Your task to perform on an android device: open a bookmark in the chrome app Image 0: 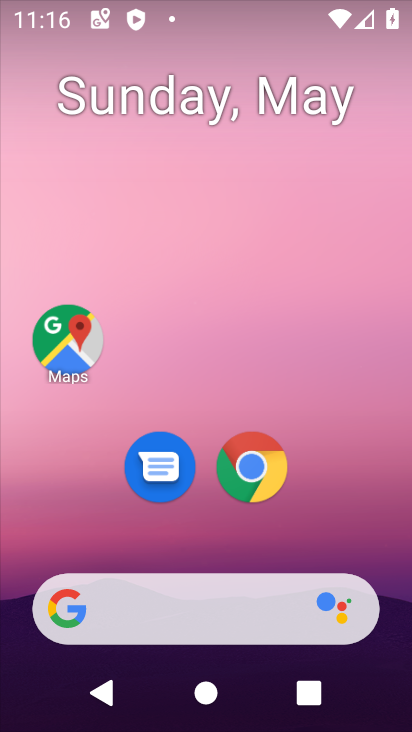
Step 0: click (256, 468)
Your task to perform on an android device: open a bookmark in the chrome app Image 1: 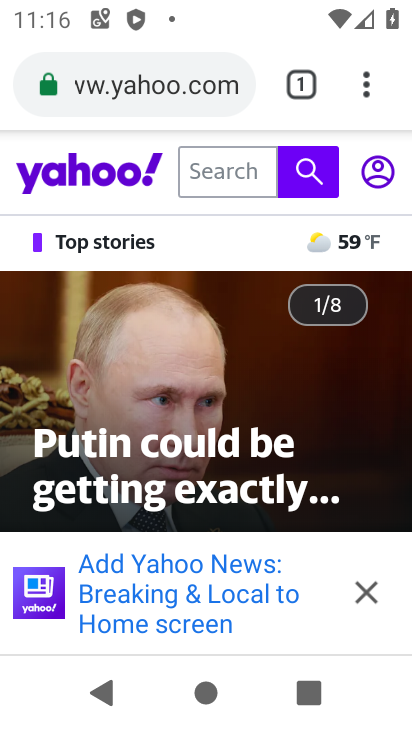
Step 1: click (368, 85)
Your task to perform on an android device: open a bookmark in the chrome app Image 2: 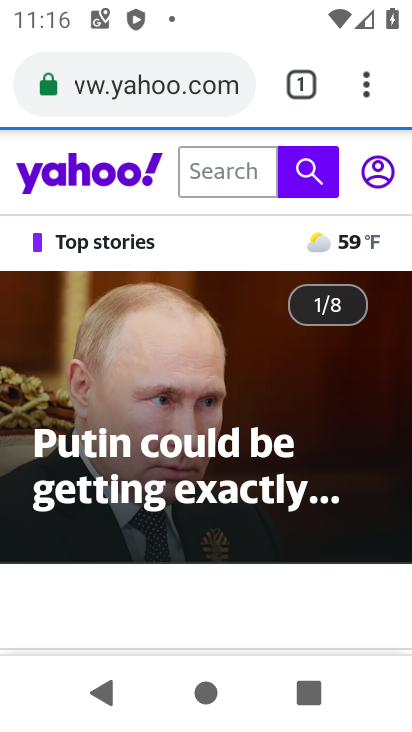
Step 2: click (368, 85)
Your task to perform on an android device: open a bookmark in the chrome app Image 3: 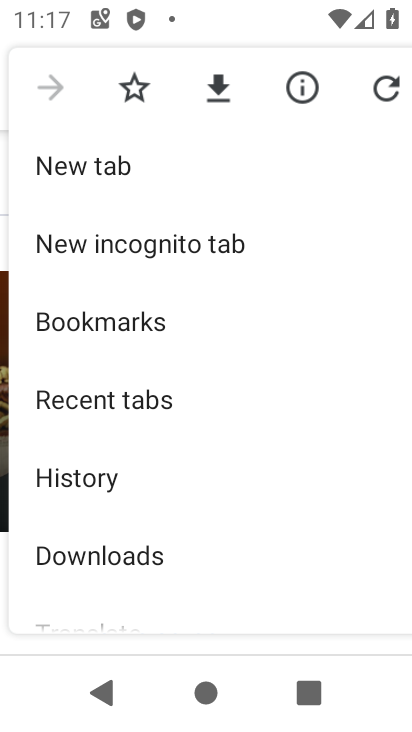
Step 3: click (110, 322)
Your task to perform on an android device: open a bookmark in the chrome app Image 4: 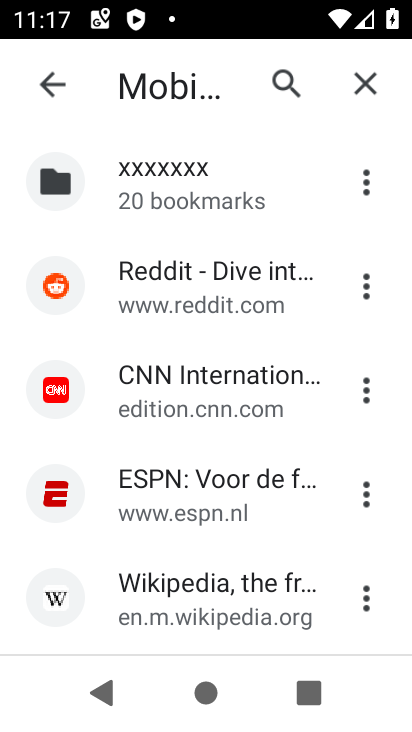
Step 4: click (194, 304)
Your task to perform on an android device: open a bookmark in the chrome app Image 5: 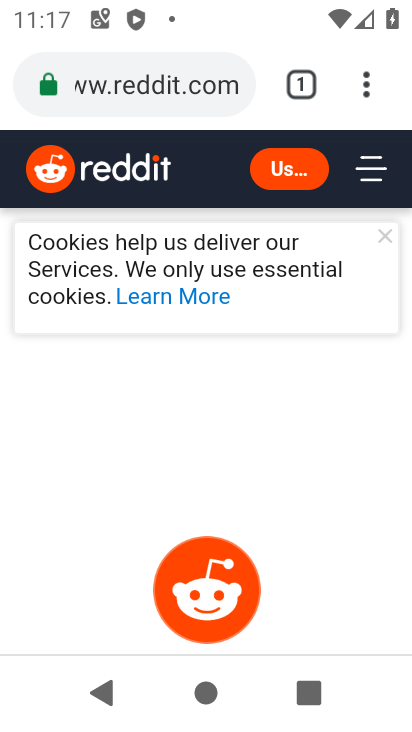
Step 5: task complete